Your task to perform on an android device: Open Chrome and go to settings Image 0: 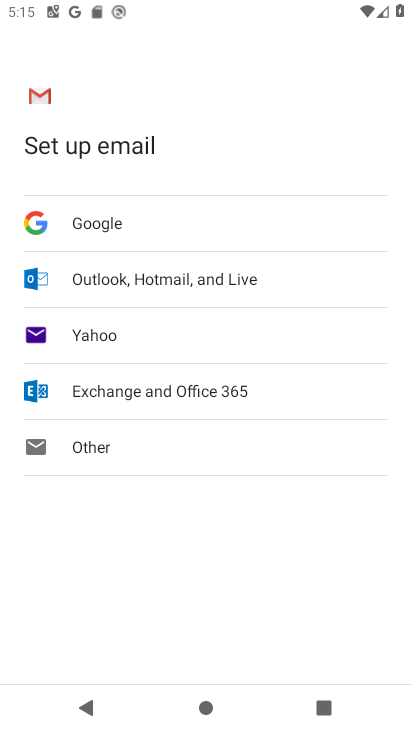
Step 0: press back button
Your task to perform on an android device: Open Chrome and go to settings Image 1: 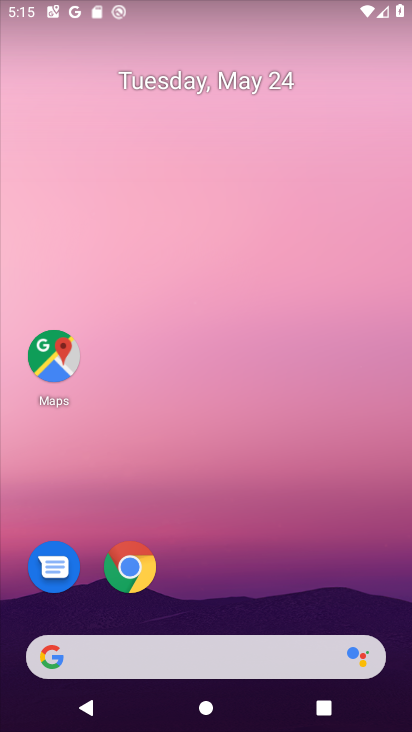
Step 1: click (131, 566)
Your task to perform on an android device: Open Chrome and go to settings Image 2: 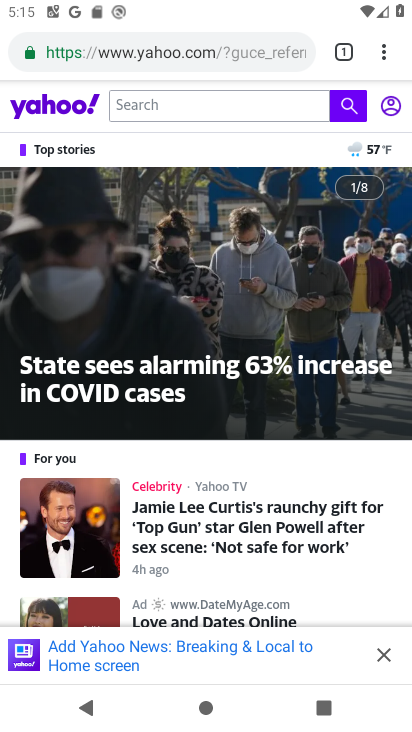
Step 2: click (384, 53)
Your task to perform on an android device: Open Chrome and go to settings Image 3: 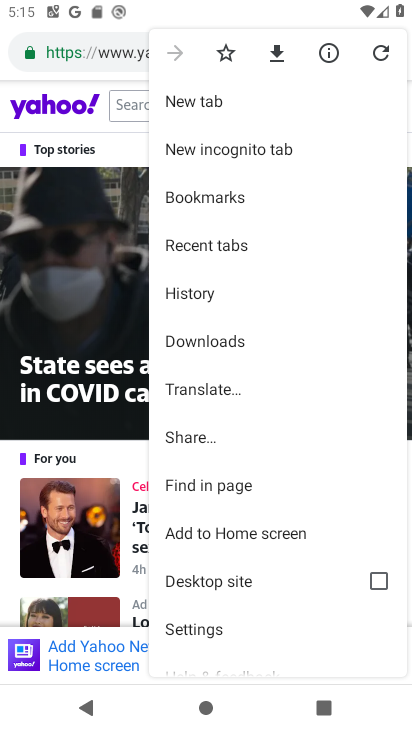
Step 3: click (191, 635)
Your task to perform on an android device: Open Chrome and go to settings Image 4: 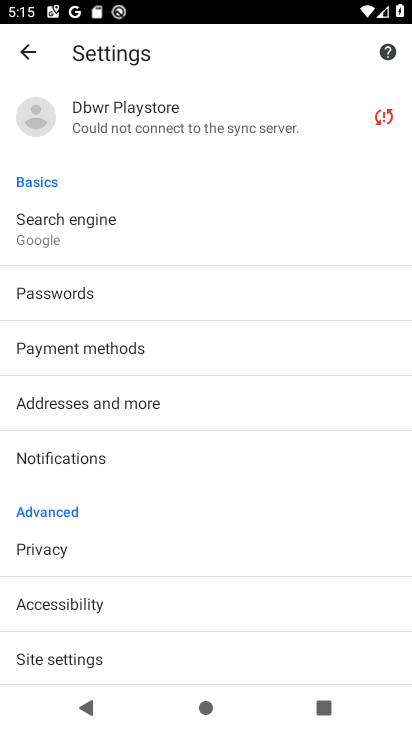
Step 4: task complete